Your task to perform on an android device: open app "Adobe Acrobat Reader: Edit PDF" (install if not already installed) Image 0: 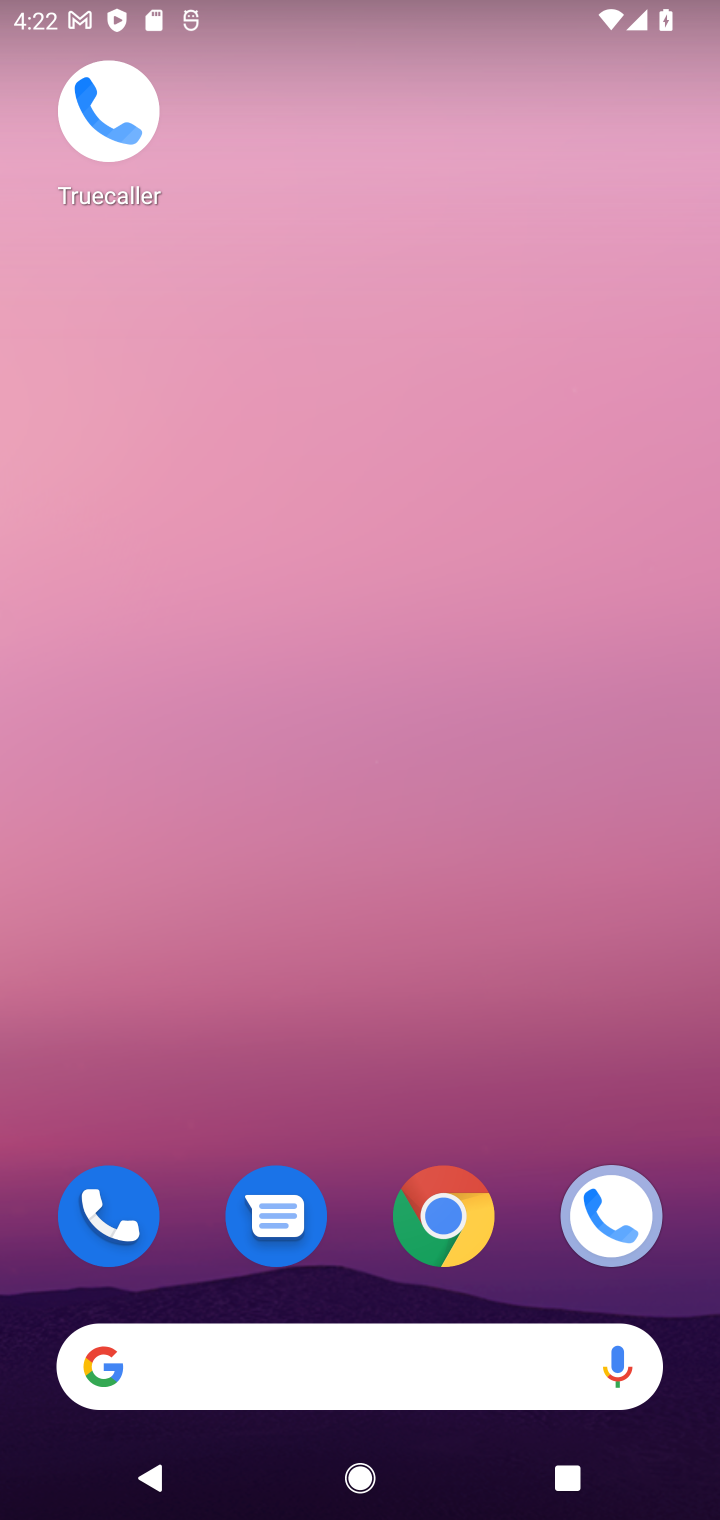
Step 0: drag from (537, 1285) to (470, 87)
Your task to perform on an android device: open app "Adobe Acrobat Reader: Edit PDF" (install if not already installed) Image 1: 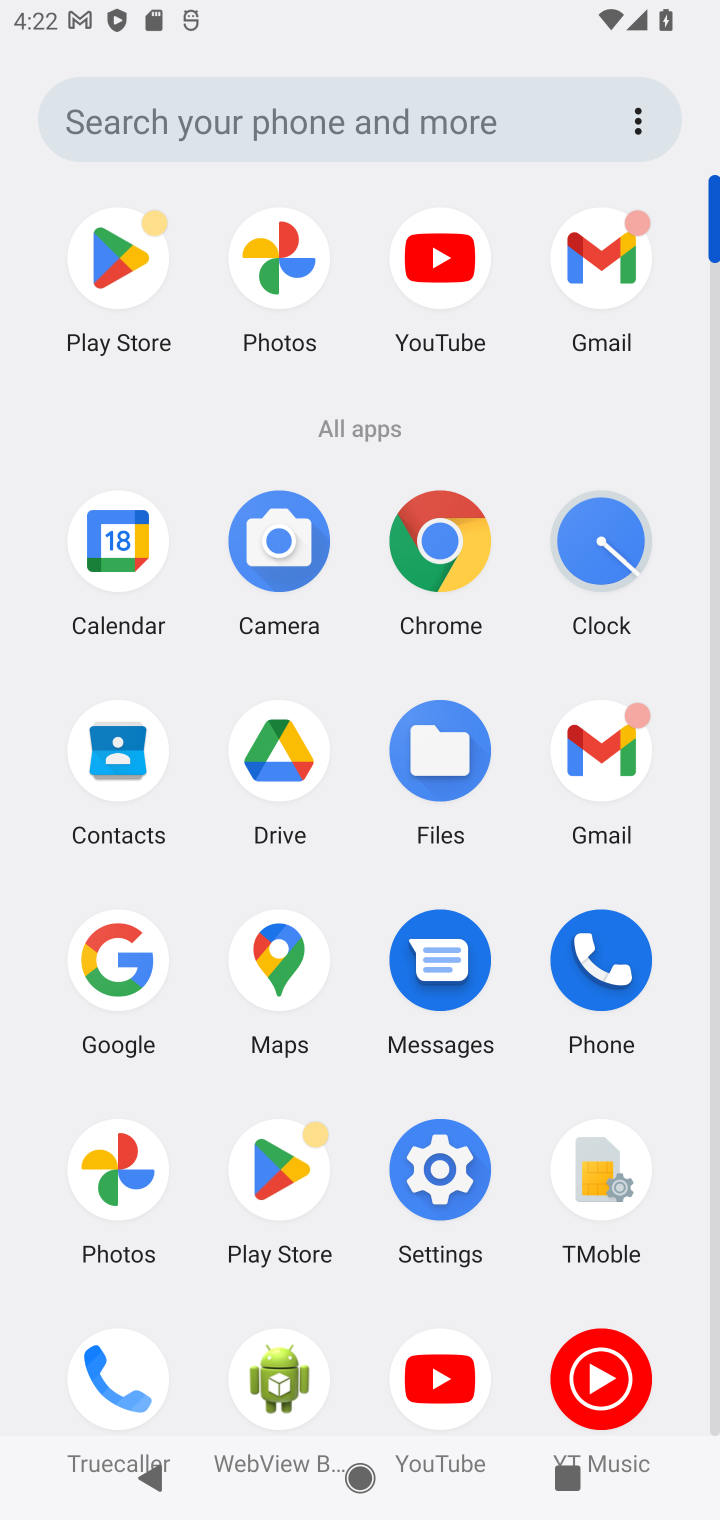
Step 1: click (276, 1168)
Your task to perform on an android device: open app "Adobe Acrobat Reader: Edit PDF" (install if not already installed) Image 2: 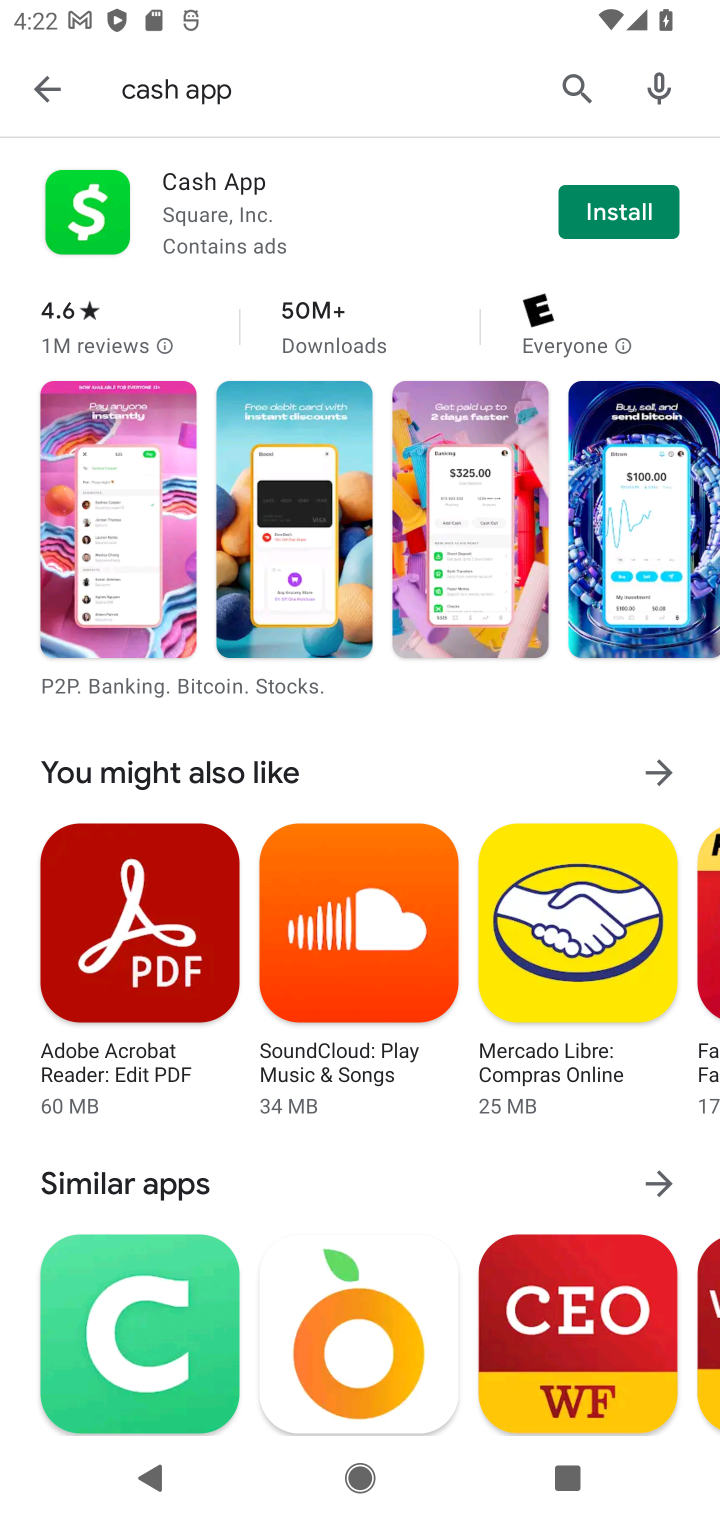
Step 2: click (561, 89)
Your task to perform on an android device: open app "Adobe Acrobat Reader: Edit PDF" (install if not already installed) Image 3: 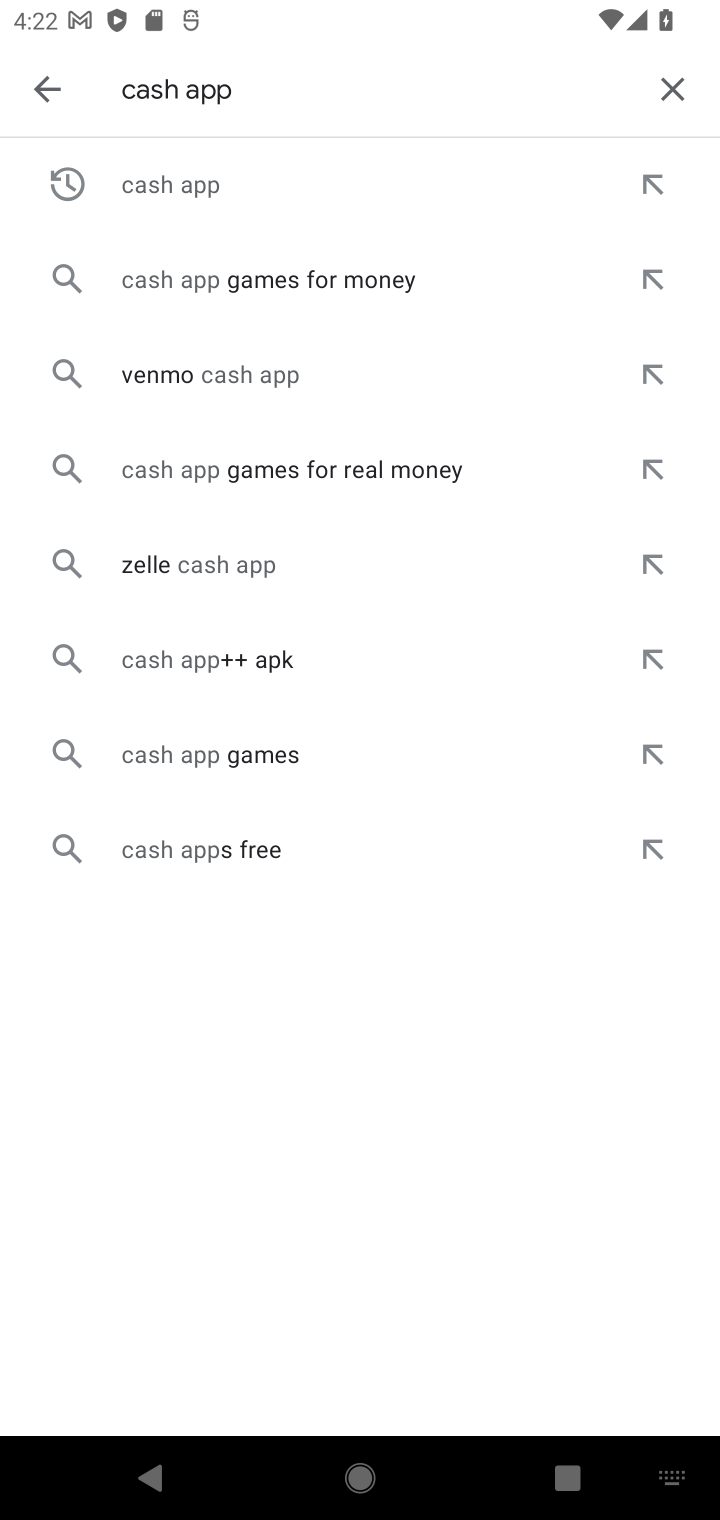
Step 3: click (671, 85)
Your task to perform on an android device: open app "Adobe Acrobat Reader: Edit PDF" (install if not already installed) Image 4: 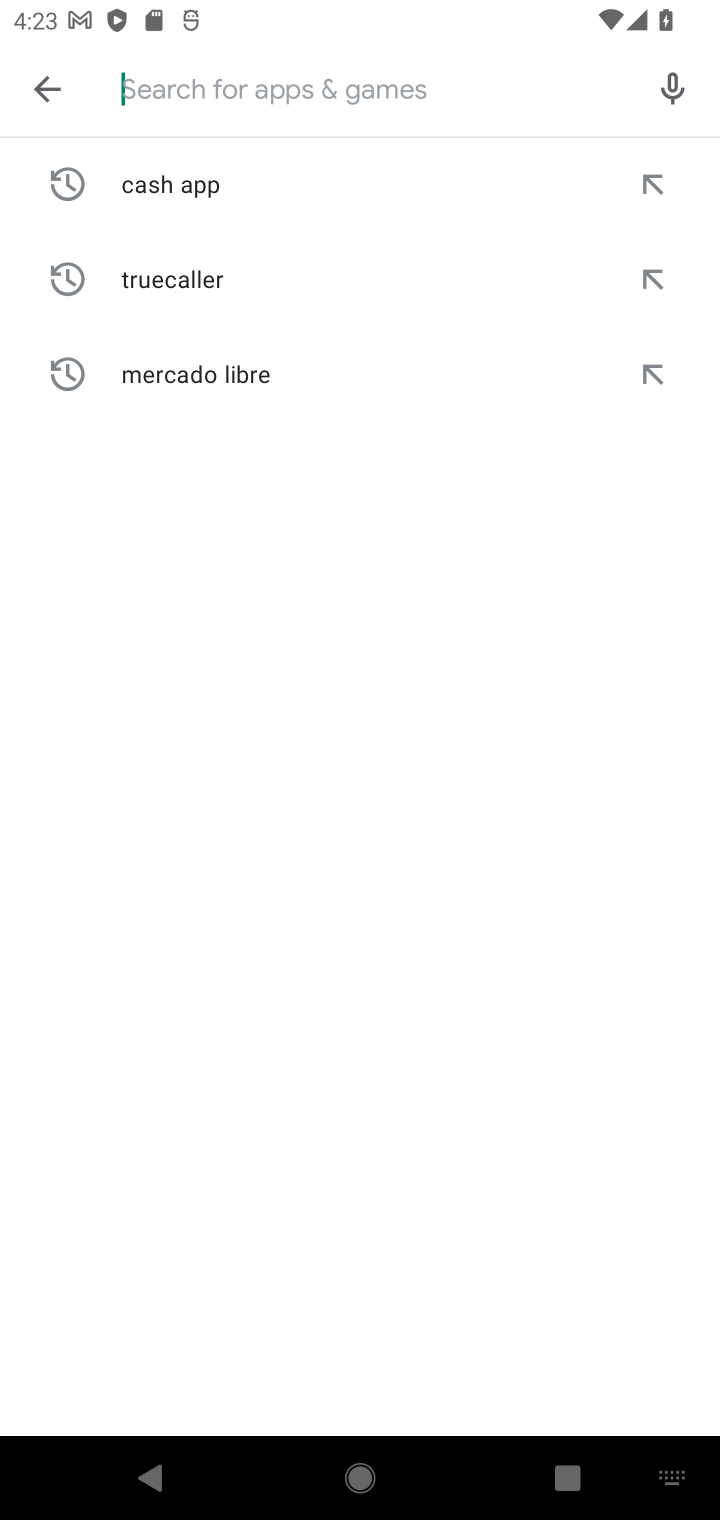
Step 4: type "Adobe Acrobat Reader: Edit PDF"
Your task to perform on an android device: open app "Adobe Acrobat Reader: Edit PDF" (install if not already installed) Image 5: 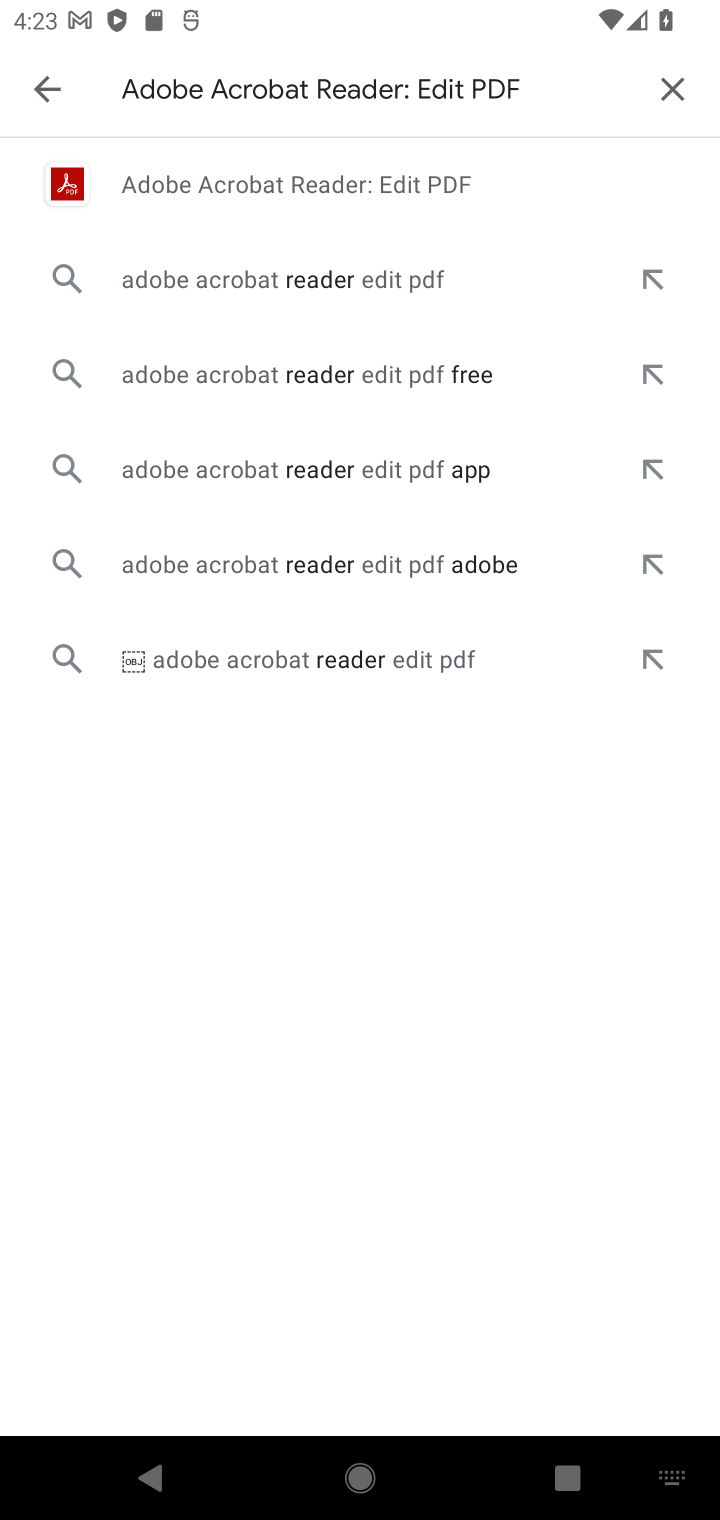
Step 5: click (177, 181)
Your task to perform on an android device: open app "Adobe Acrobat Reader: Edit PDF" (install if not already installed) Image 6: 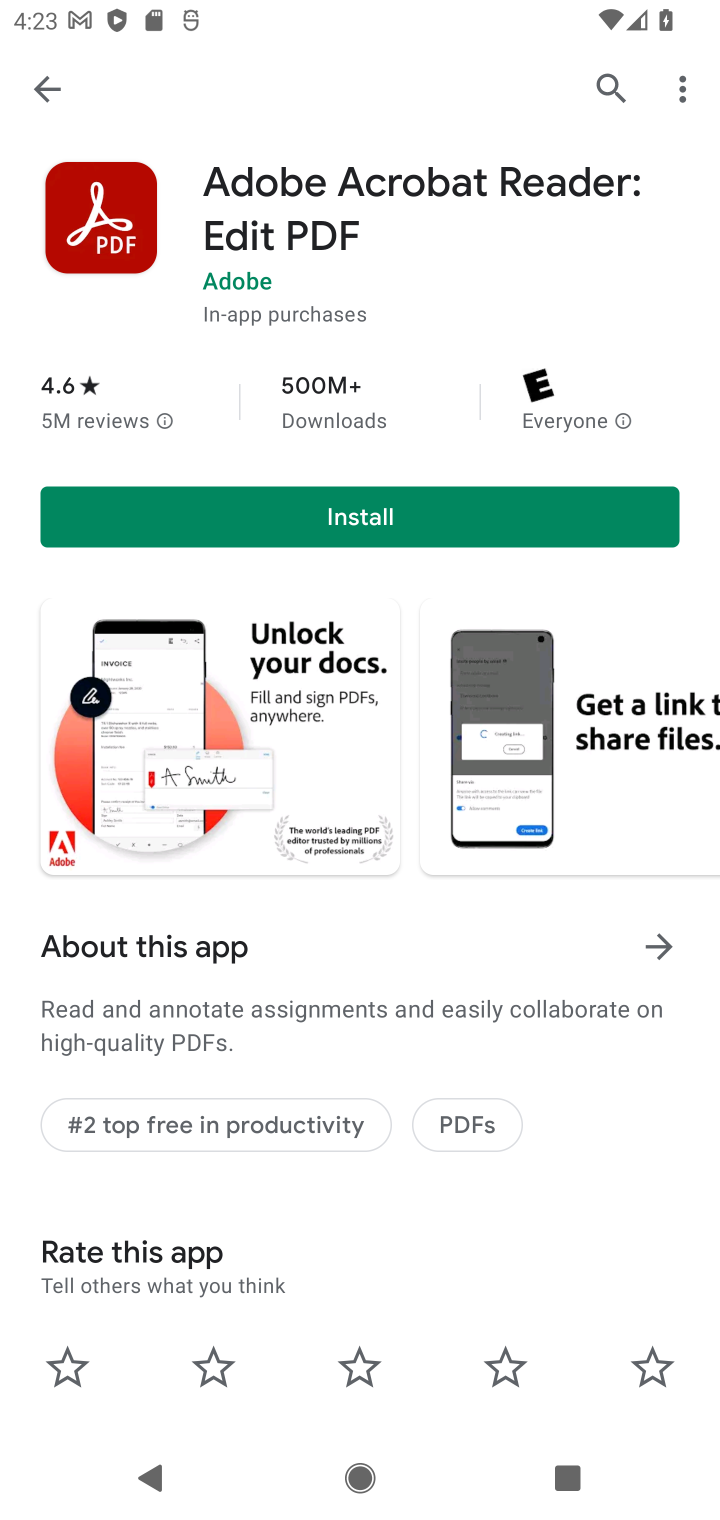
Step 6: click (354, 521)
Your task to perform on an android device: open app "Adobe Acrobat Reader: Edit PDF" (install if not already installed) Image 7: 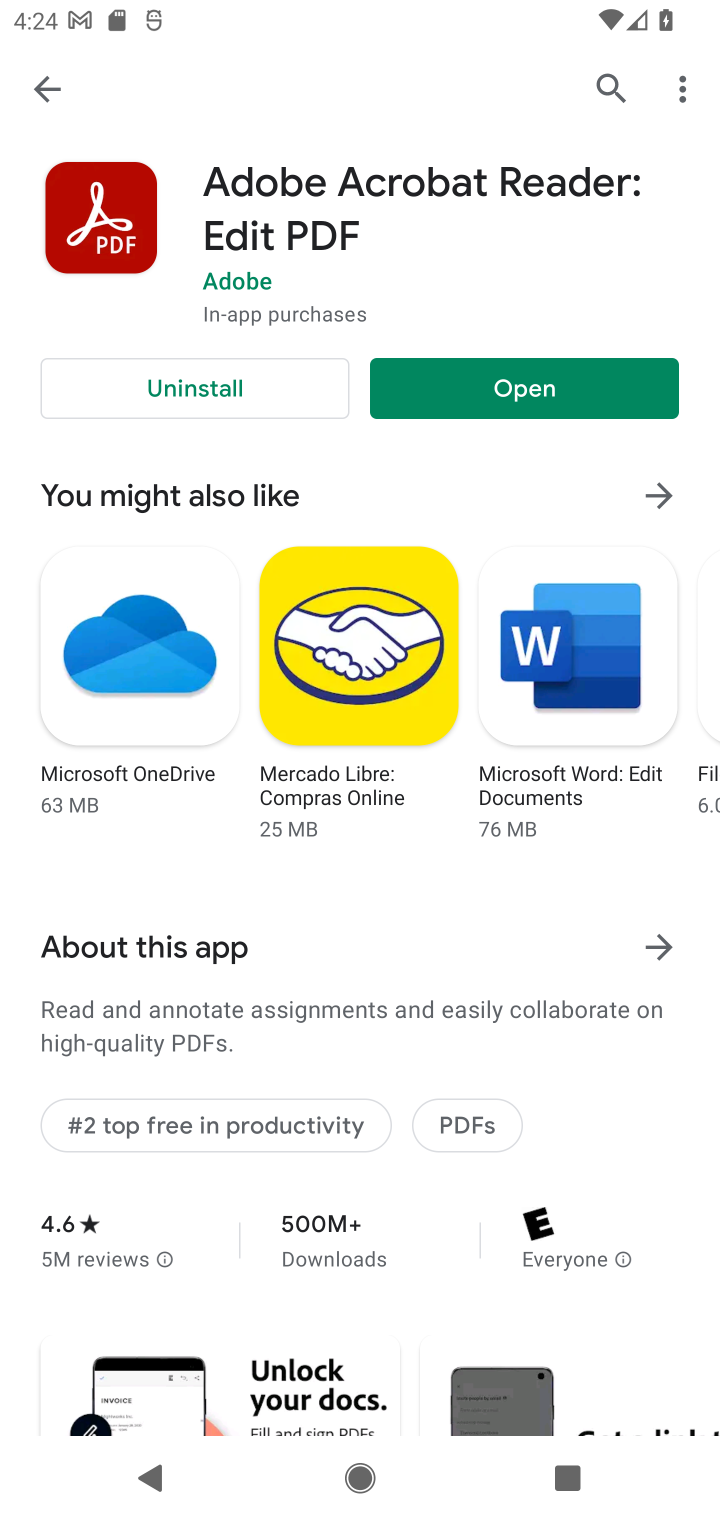
Step 7: click (494, 398)
Your task to perform on an android device: open app "Adobe Acrobat Reader: Edit PDF" (install if not already installed) Image 8: 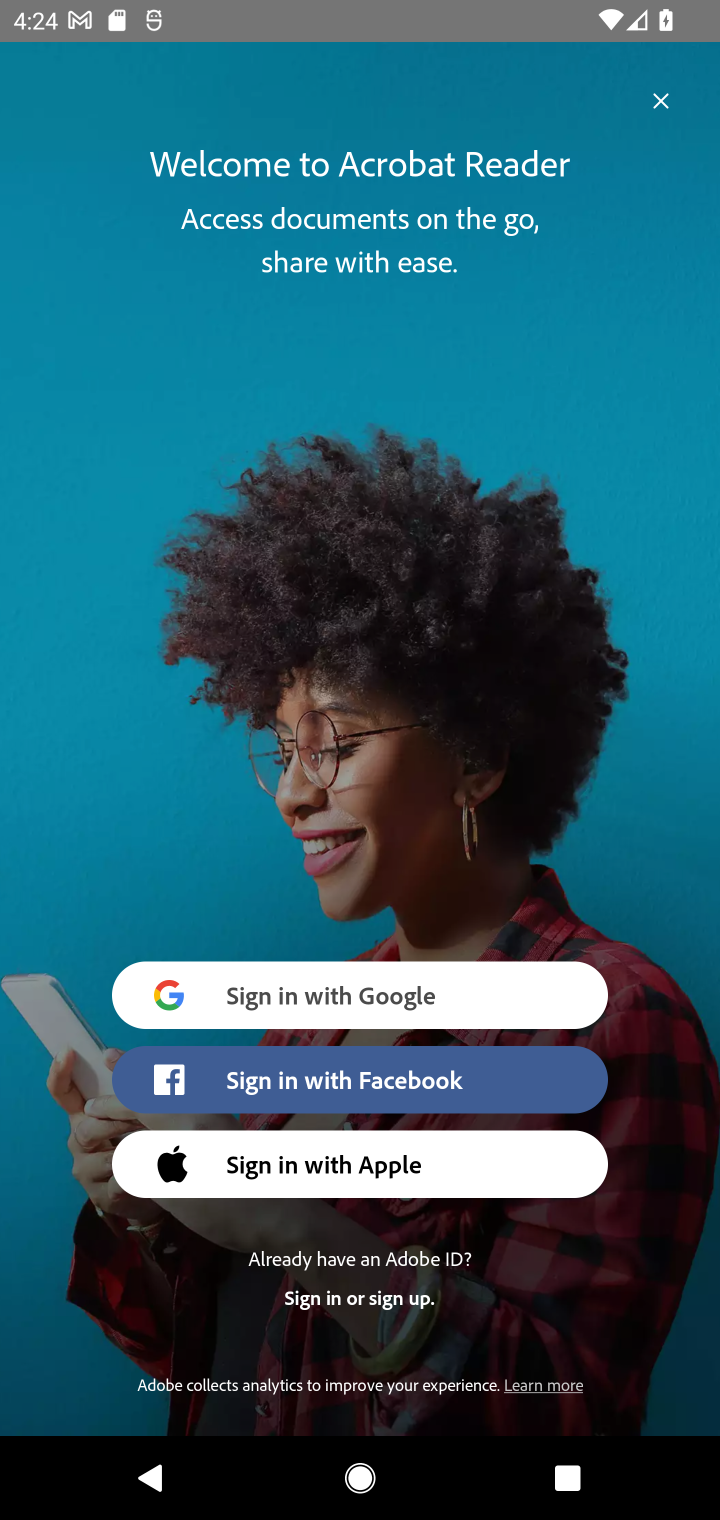
Step 8: task complete